Your task to perform on an android device: clear all cookies in the chrome app Image 0: 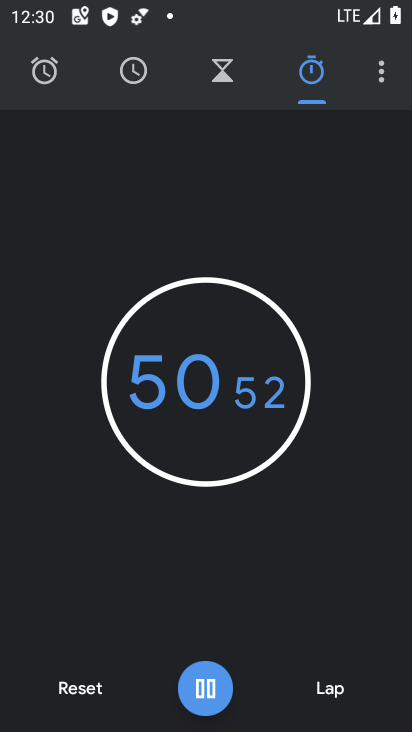
Step 0: click (66, 693)
Your task to perform on an android device: clear all cookies in the chrome app Image 1: 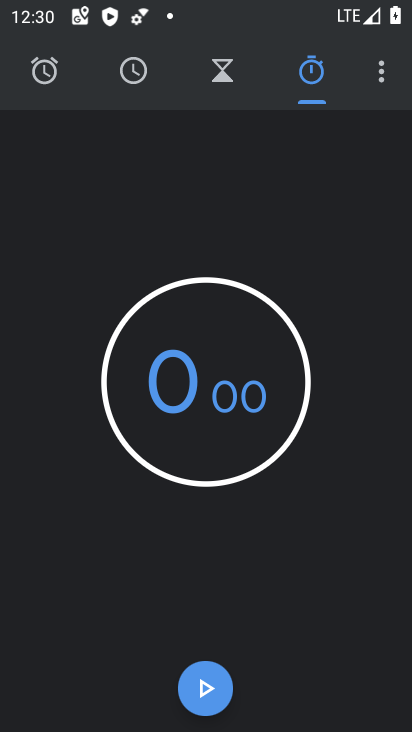
Step 1: press home button
Your task to perform on an android device: clear all cookies in the chrome app Image 2: 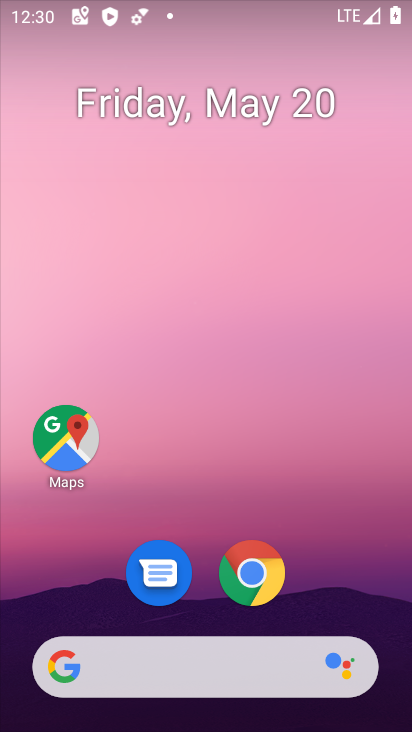
Step 2: click (242, 577)
Your task to perform on an android device: clear all cookies in the chrome app Image 3: 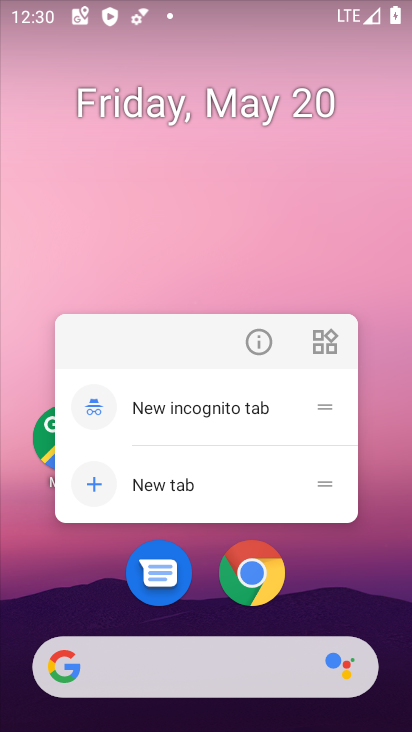
Step 3: click (239, 562)
Your task to perform on an android device: clear all cookies in the chrome app Image 4: 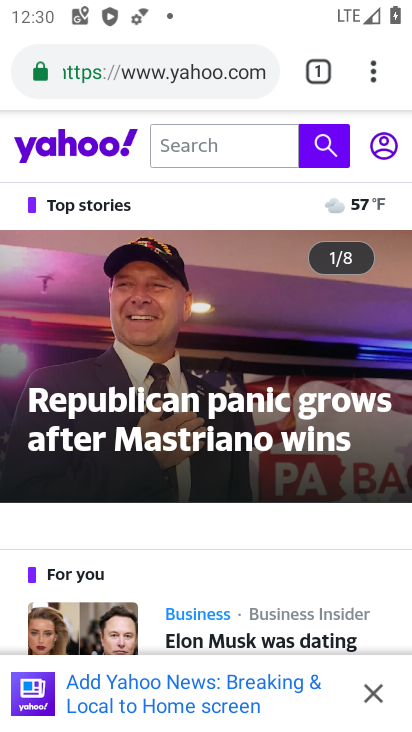
Step 4: click (375, 70)
Your task to perform on an android device: clear all cookies in the chrome app Image 5: 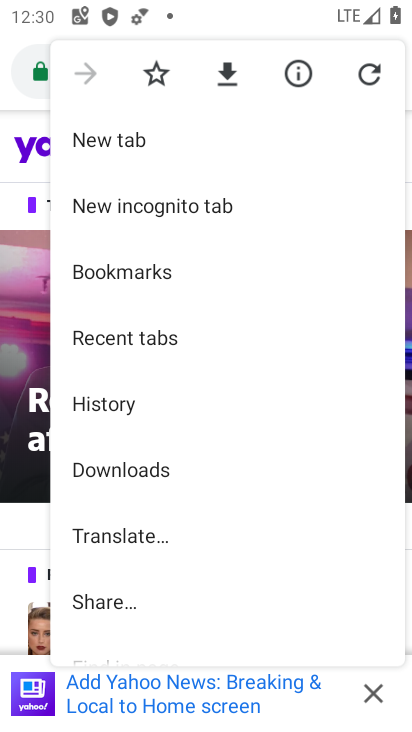
Step 5: drag from (172, 651) to (225, 271)
Your task to perform on an android device: clear all cookies in the chrome app Image 6: 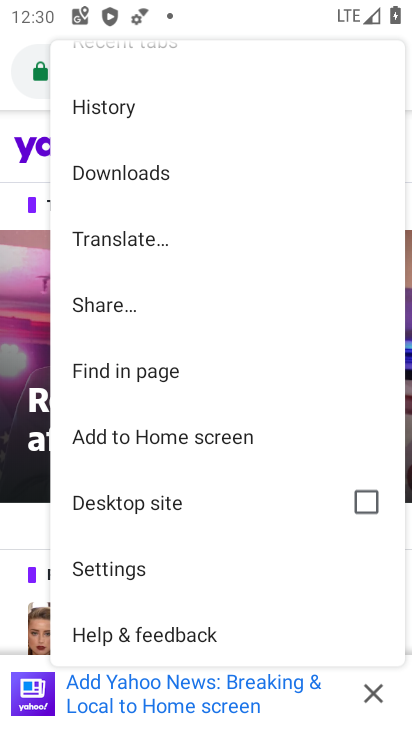
Step 6: click (105, 581)
Your task to perform on an android device: clear all cookies in the chrome app Image 7: 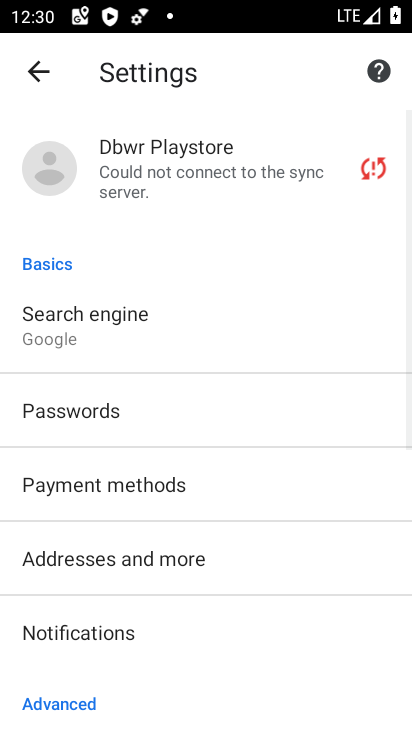
Step 7: click (40, 89)
Your task to perform on an android device: clear all cookies in the chrome app Image 8: 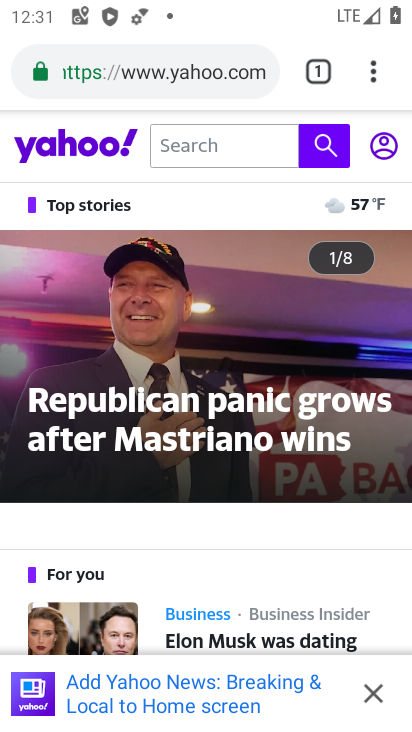
Step 8: click (375, 70)
Your task to perform on an android device: clear all cookies in the chrome app Image 9: 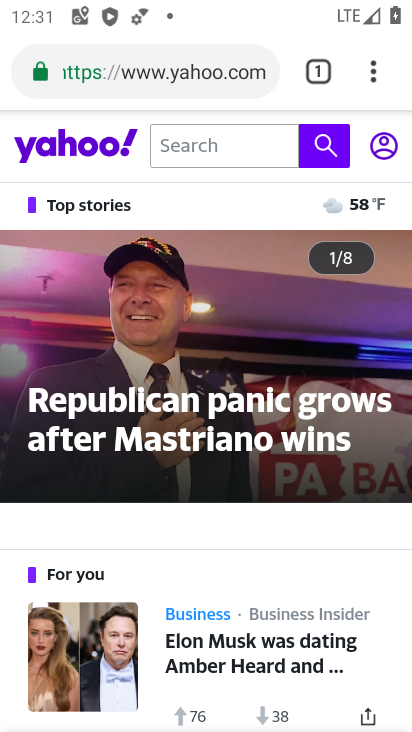
Step 9: click (373, 79)
Your task to perform on an android device: clear all cookies in the chrome app Image 10: 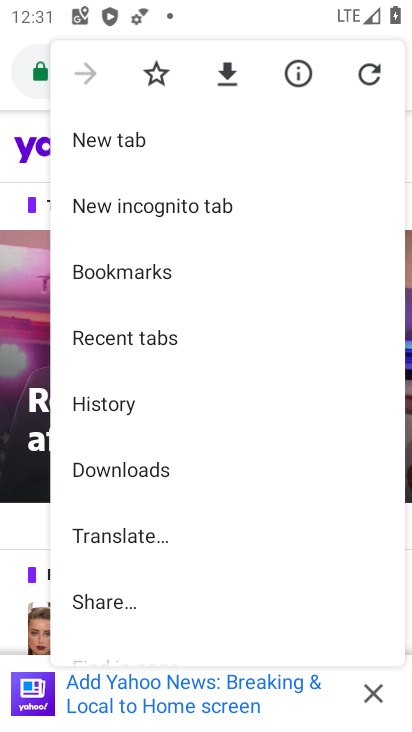
Step 10: click (115, 402)
Your task to perform on an android device: clear all cookies in the chrome app Image 11: 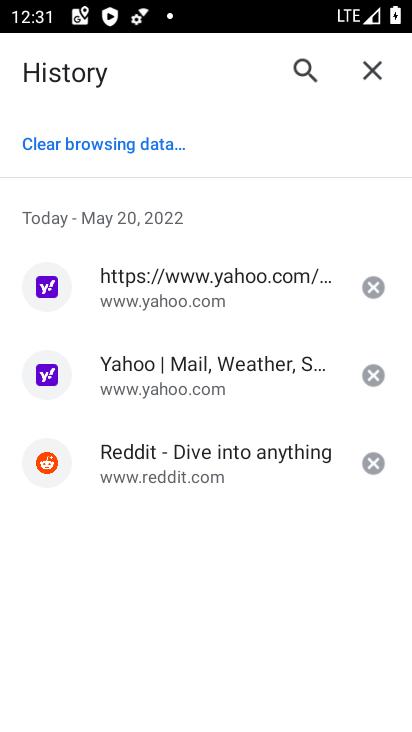
Step 11: click (110, 152)
Your task to perform on an android device: clear all cookies in the chrome app Image 12: 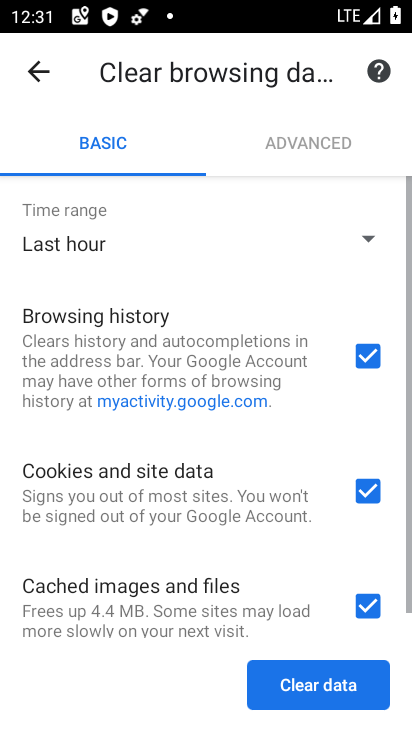
Step 12: click (306, 677)
Your task to perform on an android device: clear all cookies in the chrome app Image 13: 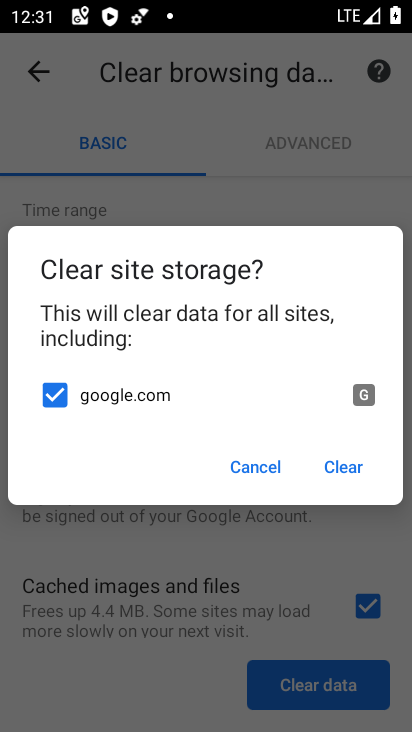
Step 13: click (336, 468)
Your task to perform on an android device: clear all cookies in the chrome app Image 14: 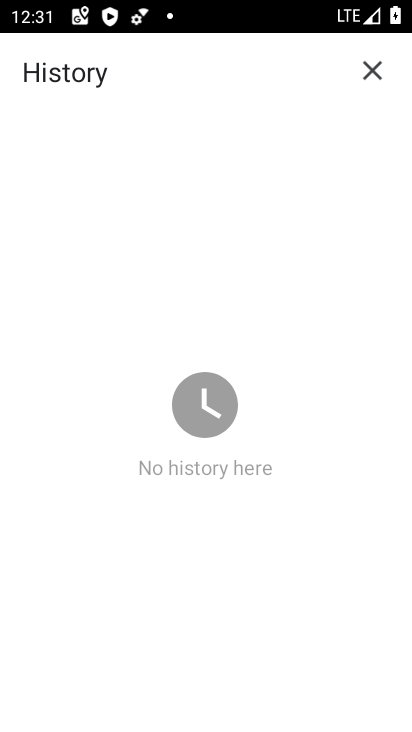
Step 14: task complete